Your task to perform on an android device: turn off translation in the chrome app Image 0: 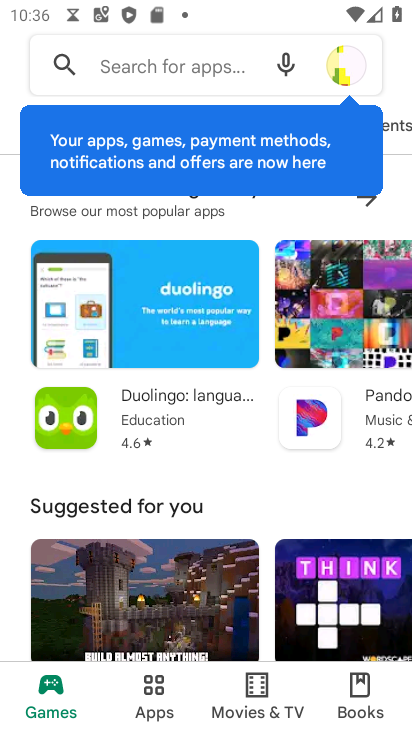
Step 0: press home button
Your task to perform on an android device: turn off translation in the chrome app Image 1: 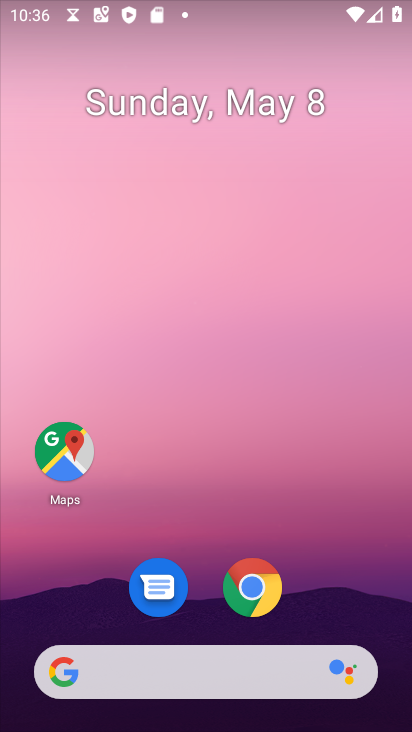
Step 1: click (256, 580)
Your task to perform on an android device: turn off translation in the chrome app Image 2: 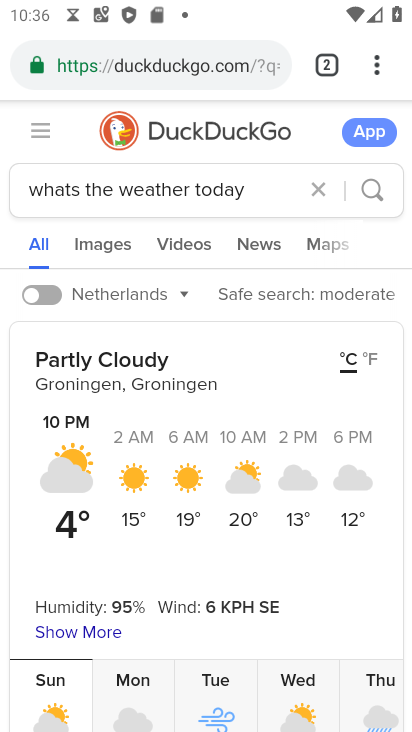
Step 2: drag from (376, 66) to (158, 636)
Your task to perform on an android device: turn off translation in the chrome app Image 3: 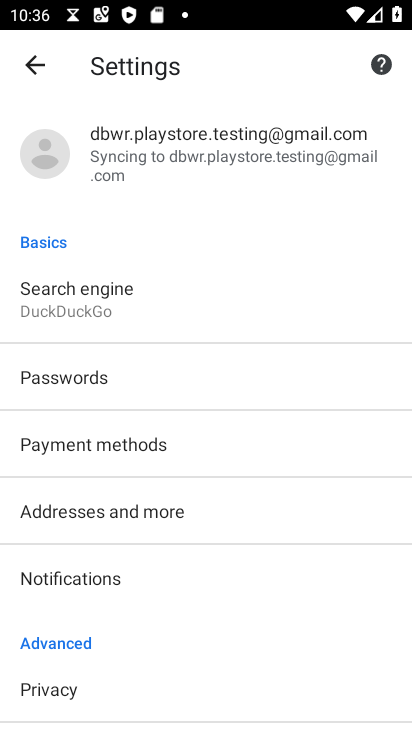
Step 3: drag from (154, 655) to (145, 180)
Your task to perform on an android device: turn off translation in the chrome app Image 4: 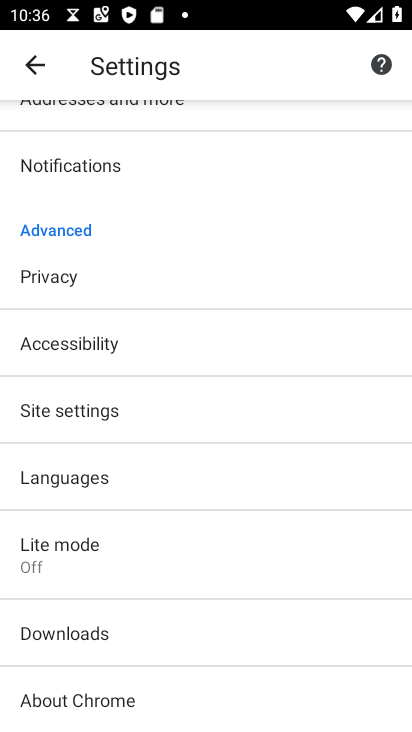
Step 4: click (70, 474)
Your task to perform on an android device: turn off translation in the chrome app Image 5: 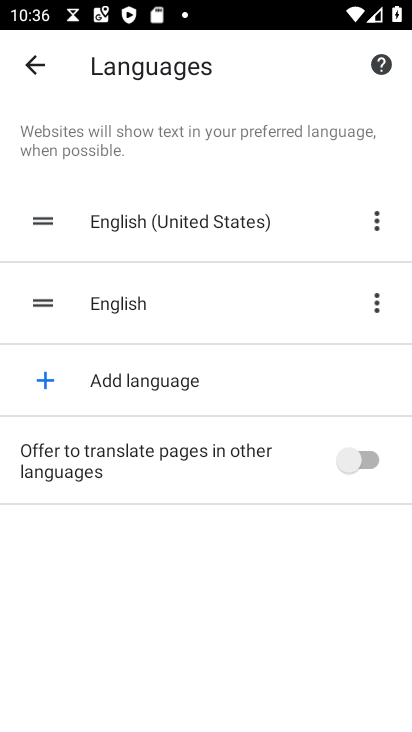
Step 5: task complete